Your task to perform on an android device: Clear the shopping cart on bestbuy.com. Search for logitech g pro on bestbuy.com, select the first entry, add it to the cart, then select checkout. Image 0: 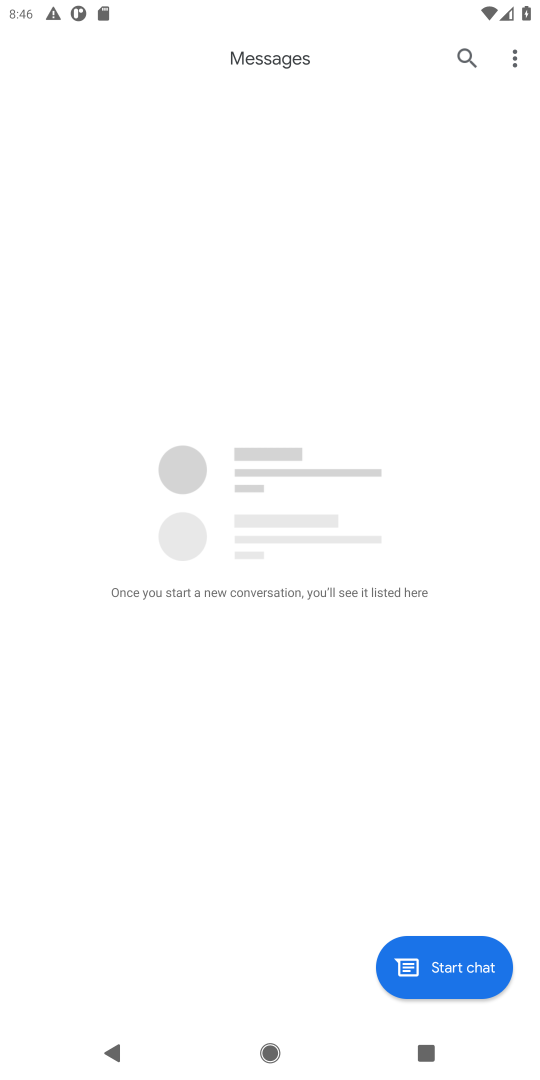
Step 0: press home button
Your task to perform on an android device: Clear the shopping cart on bestbuy.com. Search for logitech g pro on bestbuy.com, select the first entry, add it to the cart, then select checkout. Image 1: 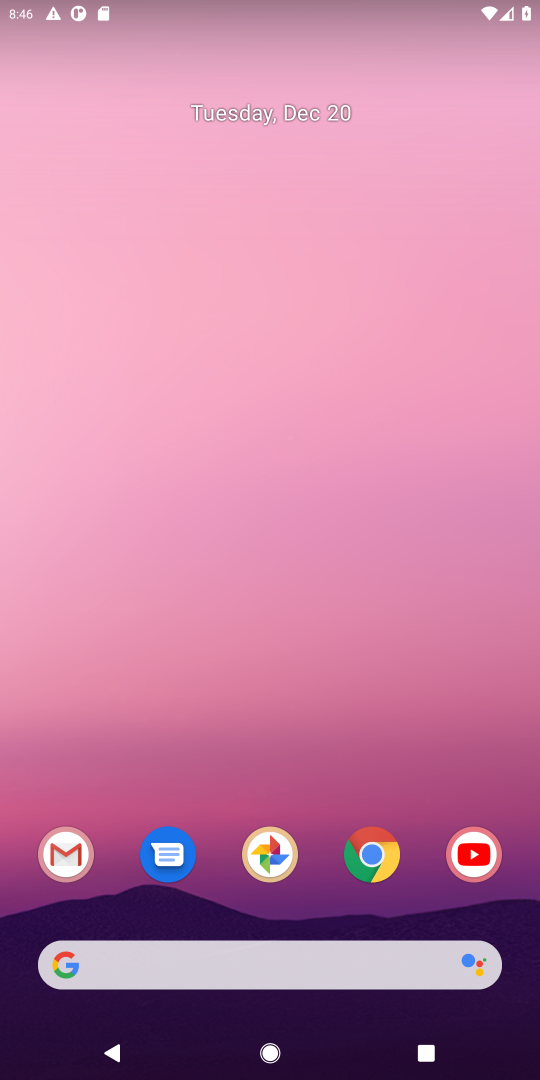
Step 1: click (375, 862)
Your task to perform on an android device: Clear the shopping cart on bestbuy.com. Search for logitech g pro on bestbuy.com, select the first entry, add it to the cart, then select checkout. Image 2: 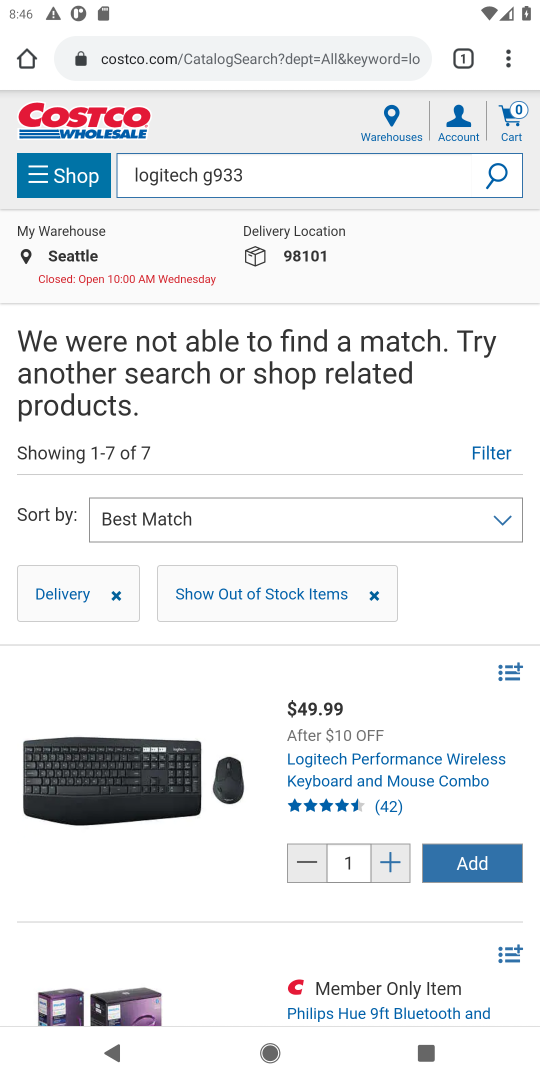
Step 2: click (180, 62)
Your task to perform on an android device: Clear the shopping cart on bestbuy.com. Search for logitech g pro on bestbuy.com, select the first entry, add it to the cart, then select checkout. Image 3: 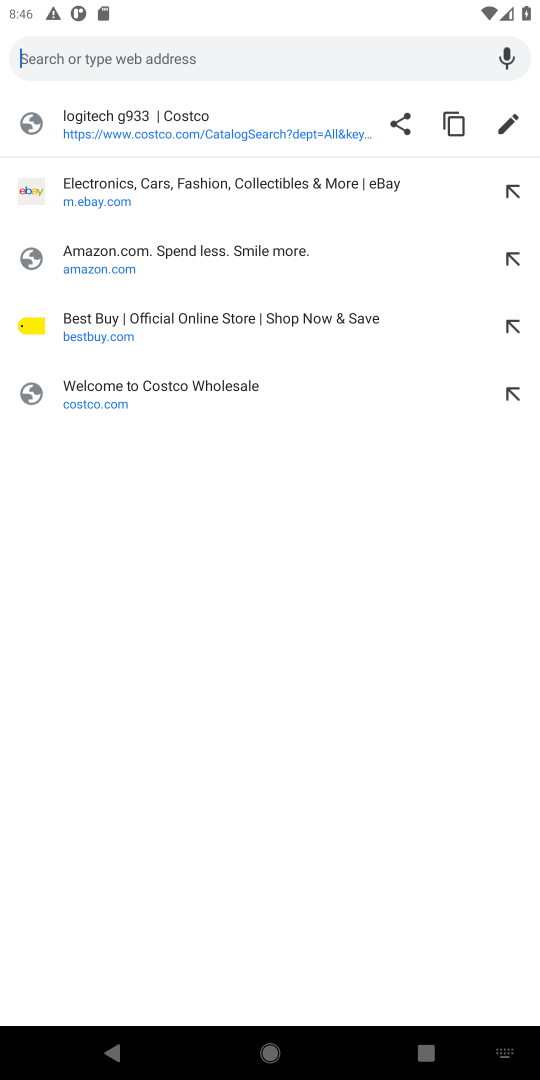
Step 3: click (83, 344)
Your task to perform on an android device: Clear the shopping cart on bestbuy.com. Search for logitech g pro on bestbuy.com, select the first entry, add it to the cart, then select checkout. Image 4: 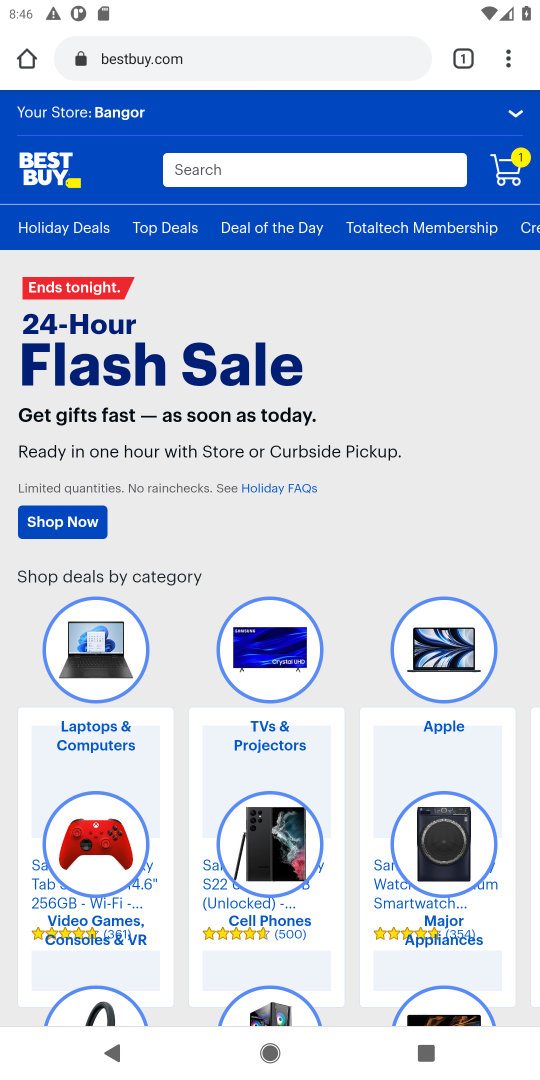
Step 4: click (515, 174)
Your task to perform on an android device: Clear the shopping cart on bestbuy.com. Search for logitech g pro on bestbuy.com, select the first entry, add it to the cart, then select checkout. Image 5: 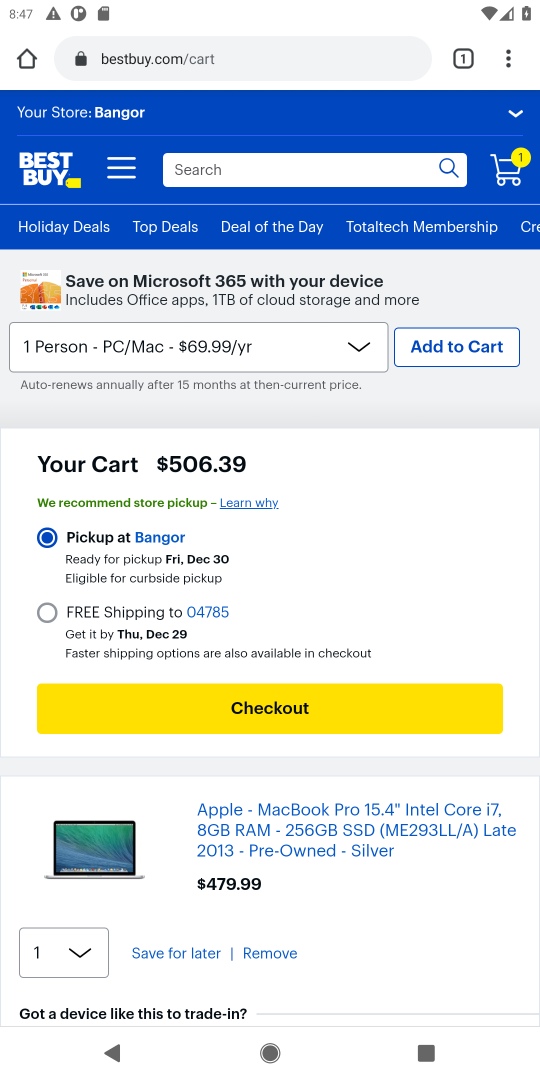
Step 5: drag from (280, 779) to (290, 466)
Your task to perform on an android device: Clear the shopping cart on bestbuy.com. Search for logitech g pro on bestbuy.com, select the first entry, add it to the cart, then select checkout. Image 6: 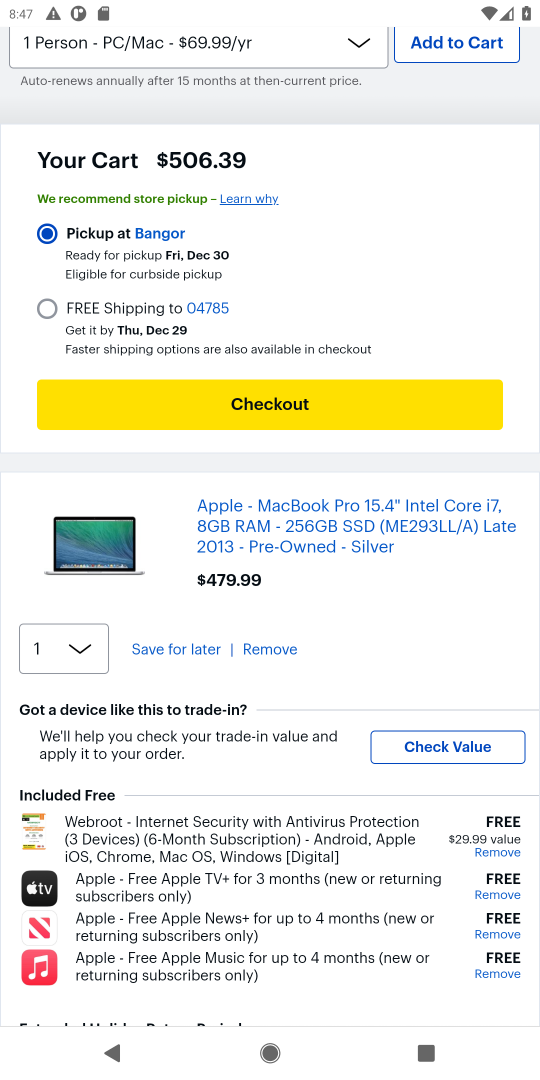
Step 6: click (265, 651)
Your task to perform on an android device: Clear the shopping cart on bestbuy.com. Search for logitech g pro on bestbuy.com, select the first entry, add it to the cart, then select checkout. Image 7: 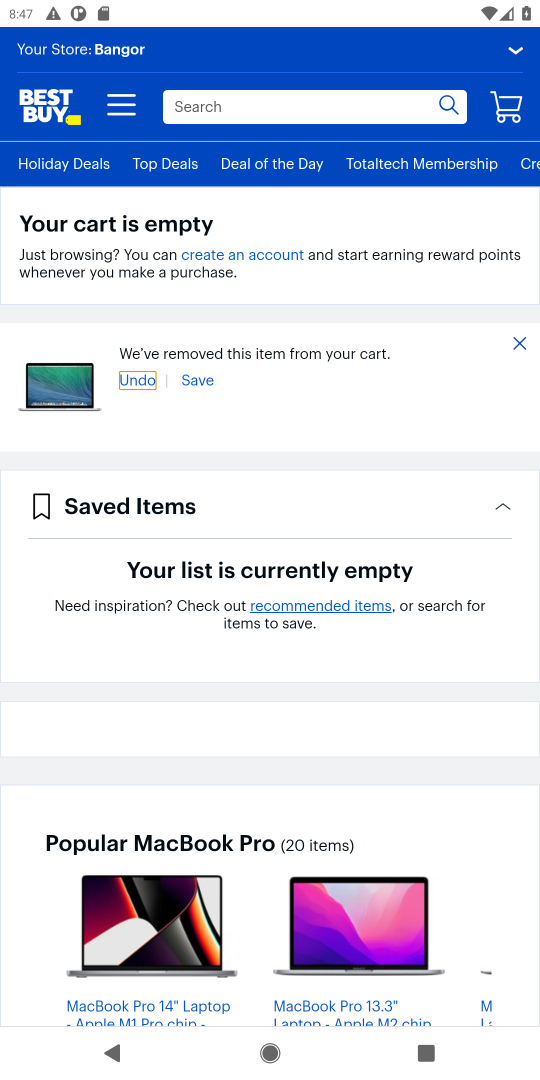
Step 7: click (229, 105)
Your task to perform on an android device: Clear the shopping cart on bestbuy.com. Search for logitech g pro on bestbuy.com, select the first entry, add it to the cart, then select checkout. Image 8: 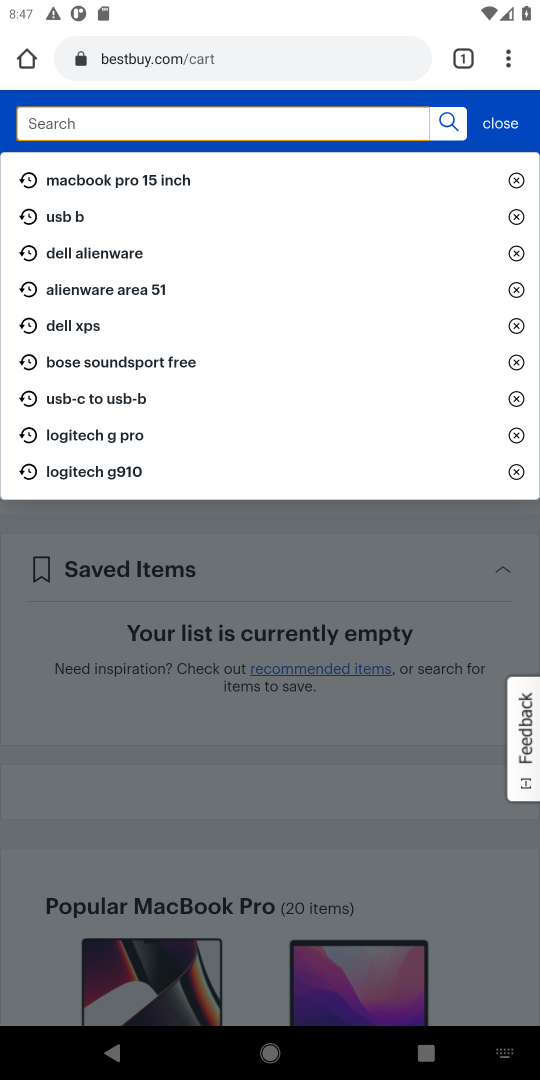
Step 8: type " logitech g pro "
Your task to perform on an android device: Clear the shopping cart on bestbuy.com. Search for logitech g pro on bestbuy.com, select the first entry, add it to the cart, then select checkout. Image 9: 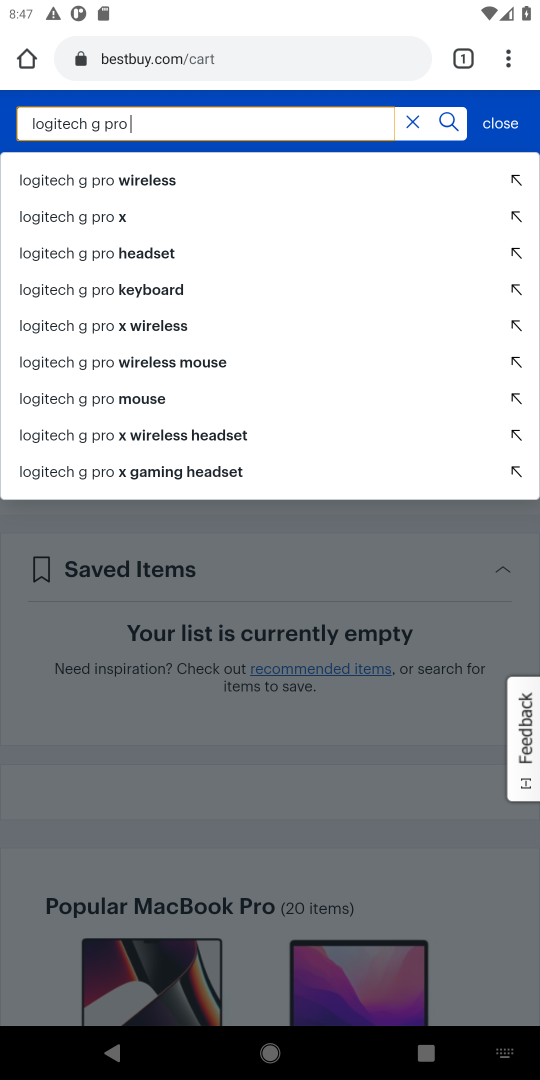
Step 9: click (446, 126)
Your task to perform on an android device: Clear the shopping cart on bestbuy.com. Search for logitech g pro on bestbuy.com, select the first entry, add it to the cart, then select checkout. Image 10: 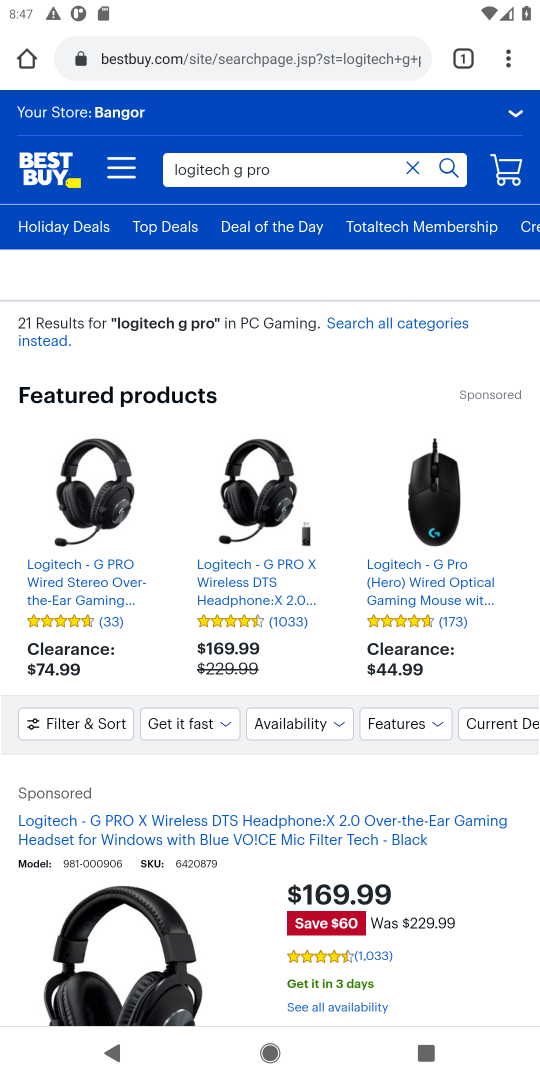
Step 10: drag from (237, 759) to (254, 423)
Your task to perform on an android device: Clear the shopping cart on bestbuy.com. Search for logitech g pro on bestbuy.com, select the first entry, add it to the cart, then select checkout. Image 11: 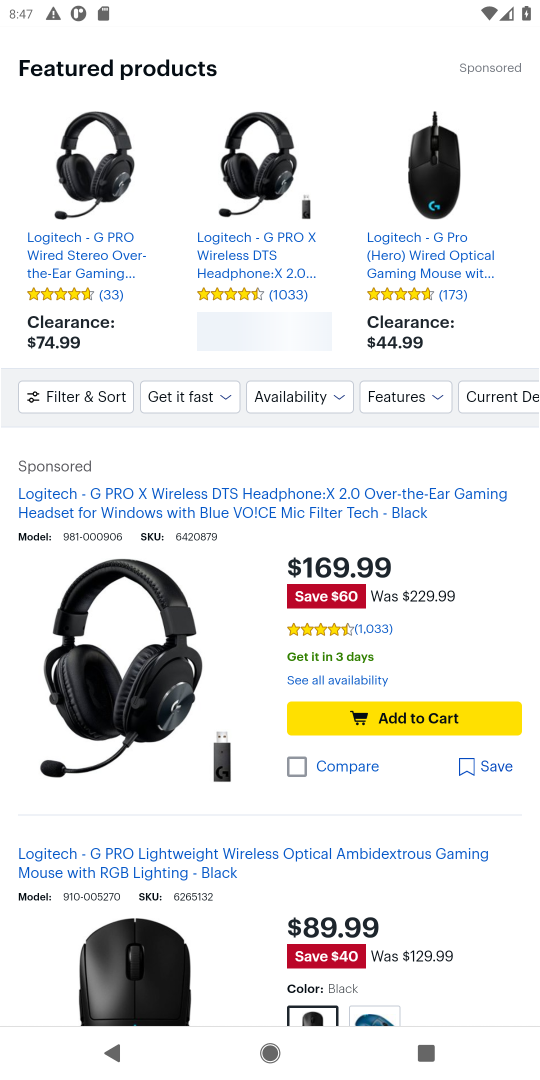
Step 11: click (404, 722)
Your task to perform on an android device: Clear the shopping cart on bestbuy.com. Search for logitech g pro on bestbuy.com, select the first entry, add it to the cart, then select checkout. Image 12: 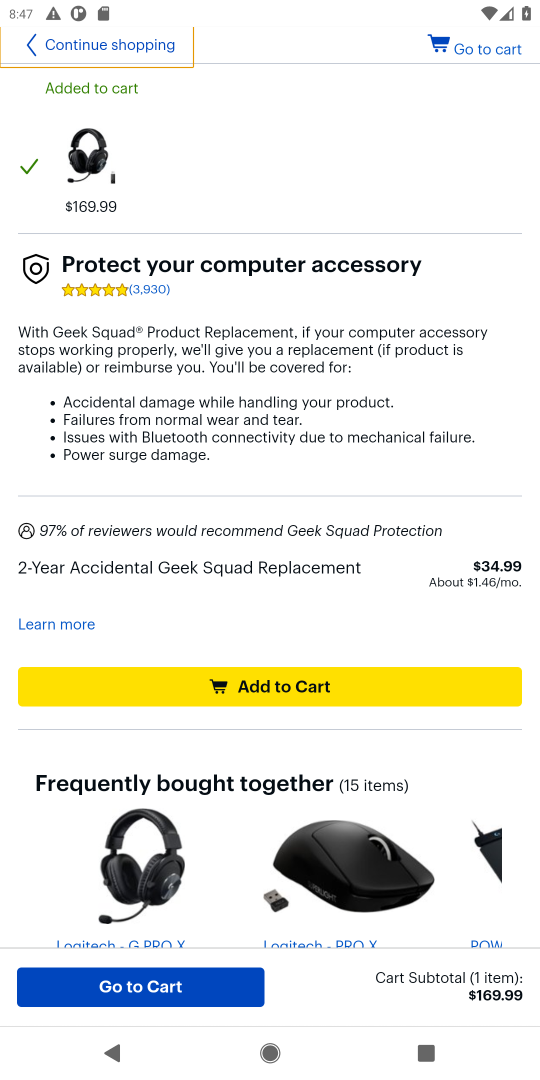
Step 12: click (484, 54)
Your task to perform on an android device: Clear the shopping cart on bestbuy.com. Search for logitech g pro on bestbuy.com, select the first entry, add it to the cart, then select checkout. Image 13: 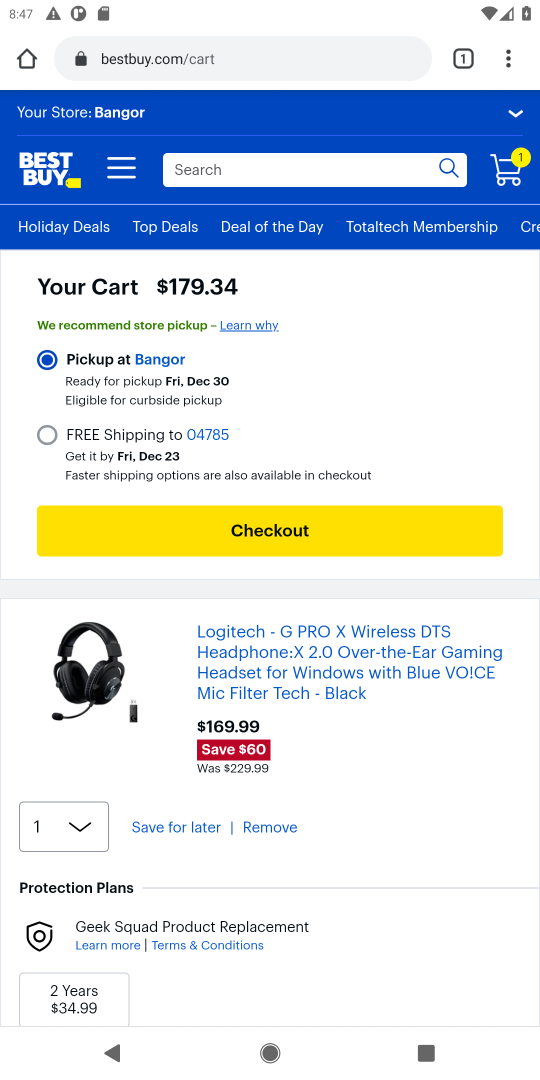
Step 13: click (235, 532)
Your task to perform on an android device: Clear the shopping cart on bestbuy.com. Search for logitech g pro on bestbuy.com, select the first entry, add it to the cart, then select checkout. Image 14: 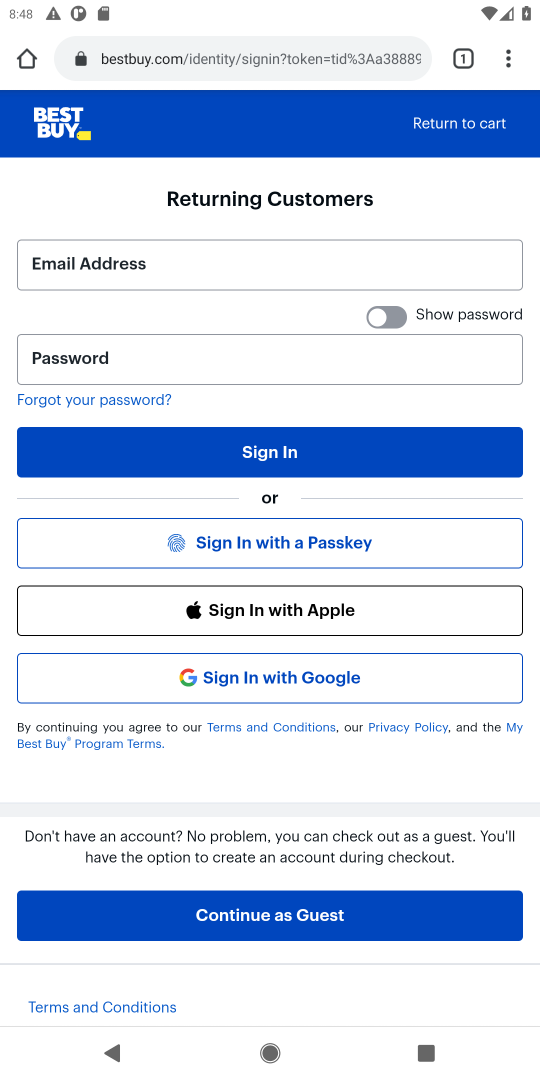
Step 14: task complete